Your task to perform on an android device: Do I have any events tomorrow? Image 0: 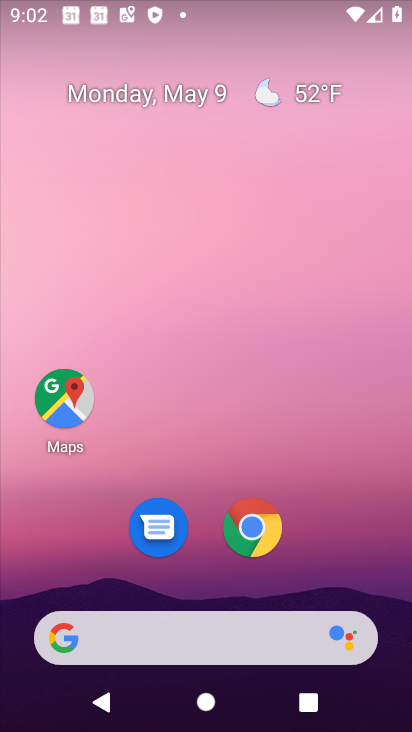
Step 0: drag from (219, 582) to (206, 42)
Your task to perform on an android device: Do I have any events tomorrow? Image 1: 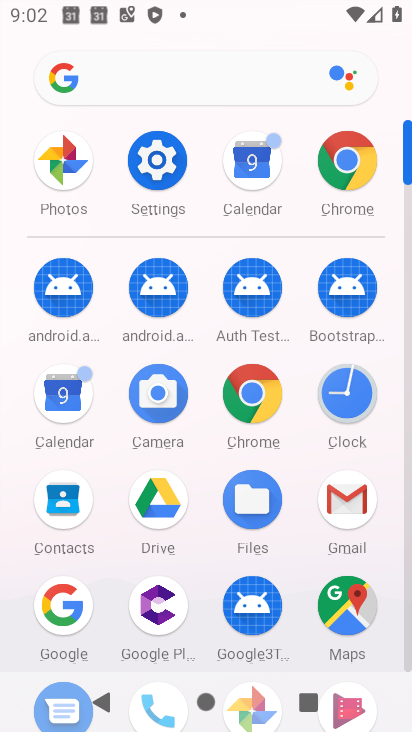
Step 1: click (65, 392)
Your task to perform on an android device: Do I have any events tomorrow? Image 2: 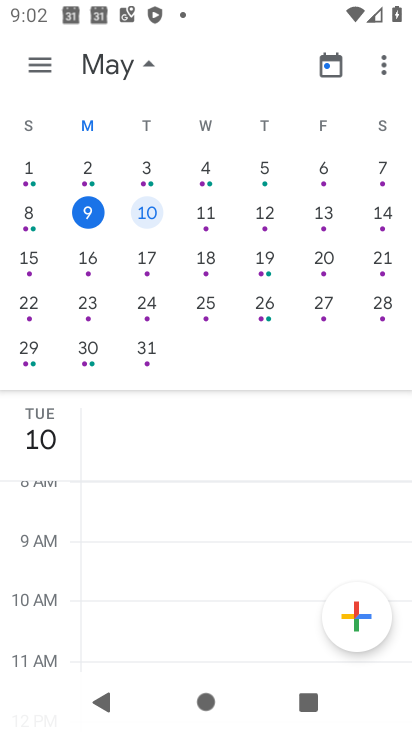
Step 2: click (151, 214)
Your task to perform on an android device: Do I have any events tomorrow? Image 3: 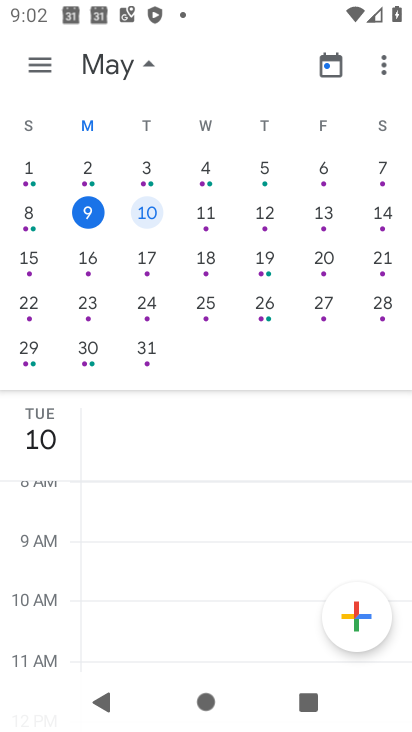
Step 3: click (150, 214)
Your task to perform on an android device: Do I have any events tomorrow? Image 4: 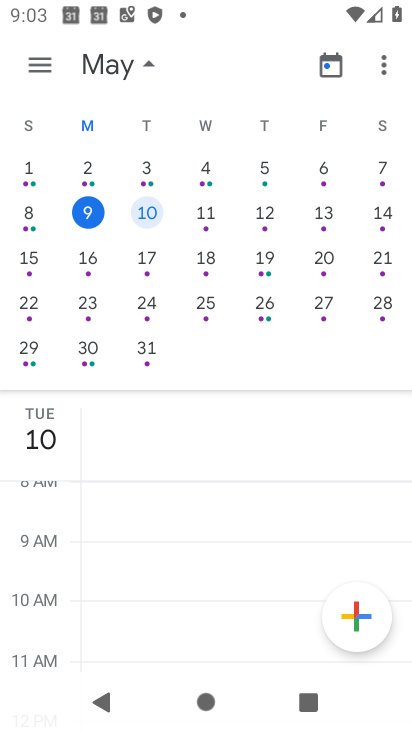
Step 4: task complete